Your task to perform on an android device: open sync settings in chrome Image 0: 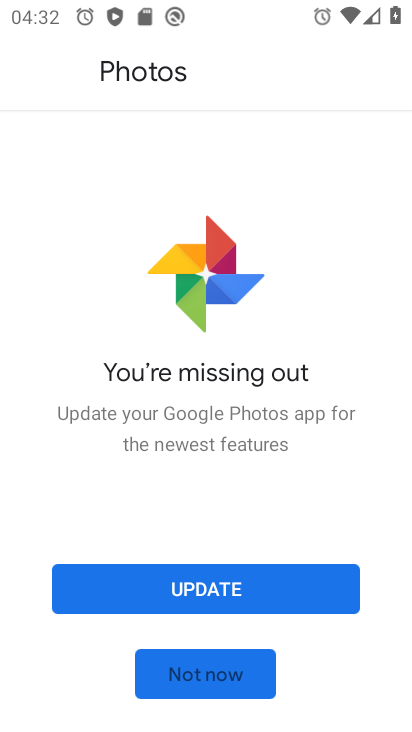
Step 0: press home button
Your task to perform on an android device: open sync settings in chrome Image 1: 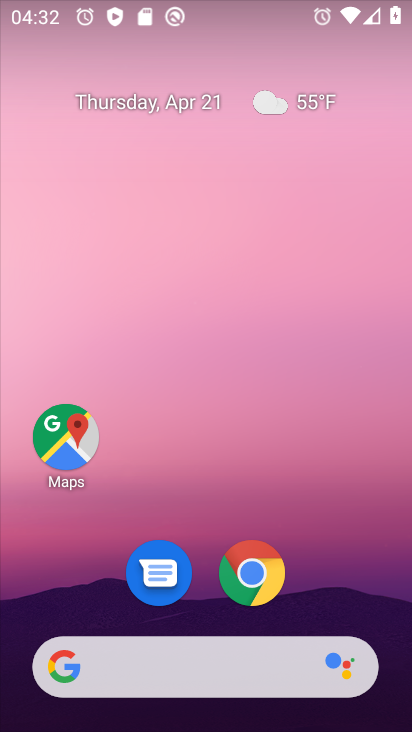
Step 1: click (248, 568)
Your task to perform on an android device: open sync settings in chrome Image 2: 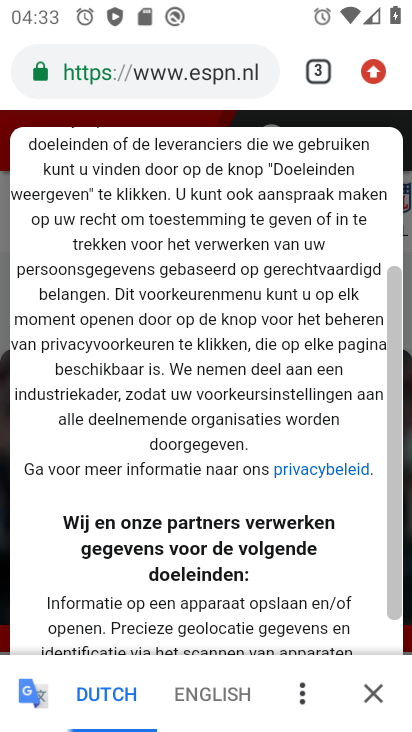
Step 2: click (368, 75)
Your task to perform on an android device: open sync settings in chrome Image 3: 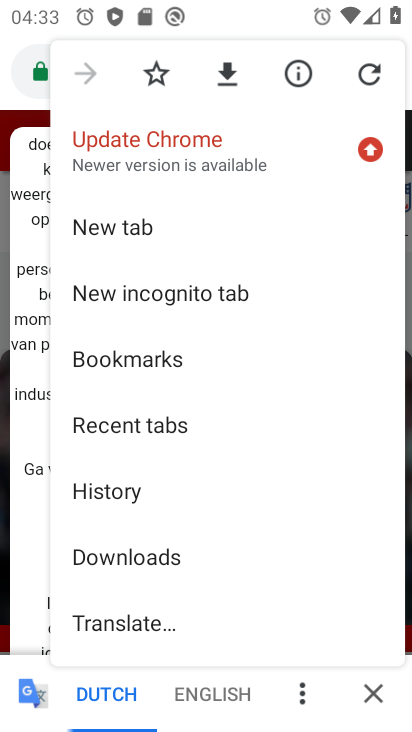
Step 3: drag from (246, 552) to (275, 274)
Your task to perform on an android device: open sync settings in chrome Image 4: 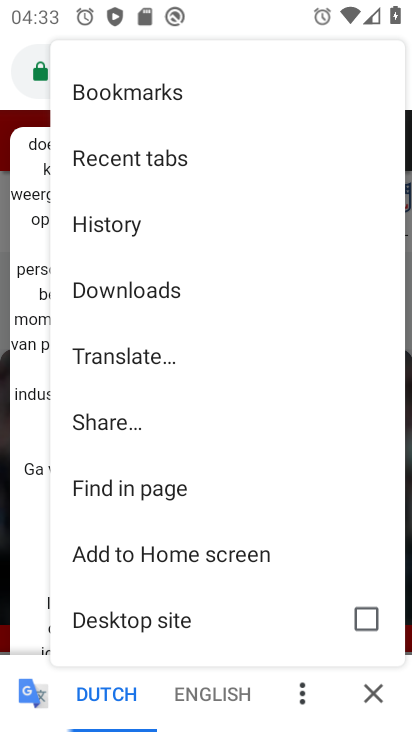
Step 4: drag from (282, 603) to (296, 316)
Your task to perform on an android device: open sync settings in chrome Image 5: 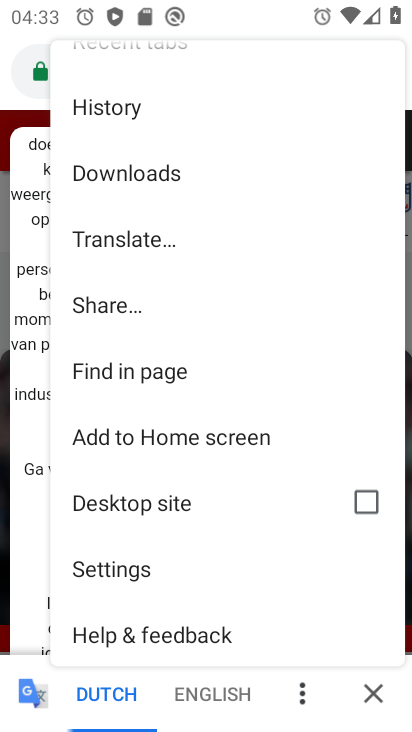
Step 5: click (110, 577)
Your task to perform on an android device: open sync settings in chrome Image 6: 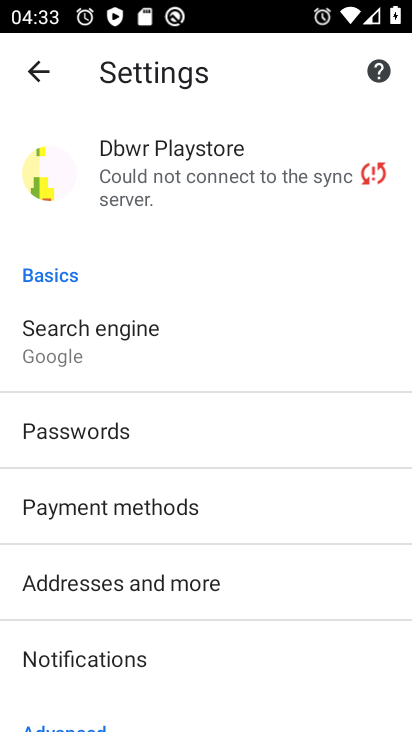
Step 6: click (141, 167)
Your task to perform on an android device: open sync settings in chrome Image 7: 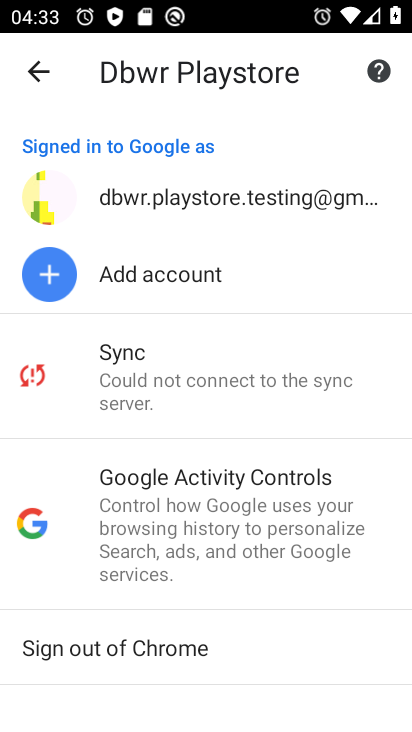
Step 7: drag from (288, 479) to (292, 438)
Your task to perform on an android device: open sync settings in chrome Image 8: 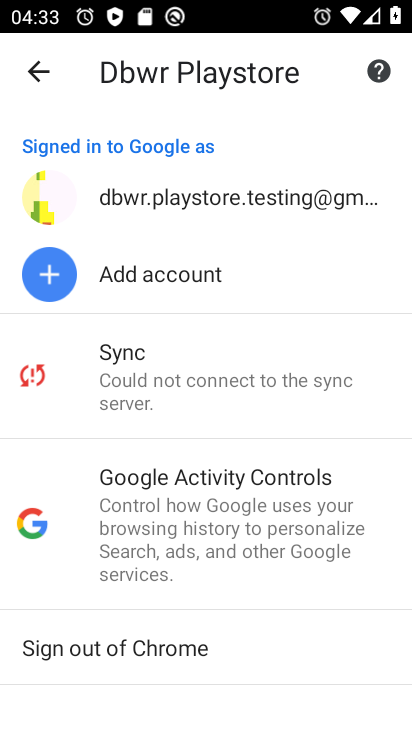
Step 8: click (135, 367)
Your task to perform on an android device: open sync settings in chrome Image 9: 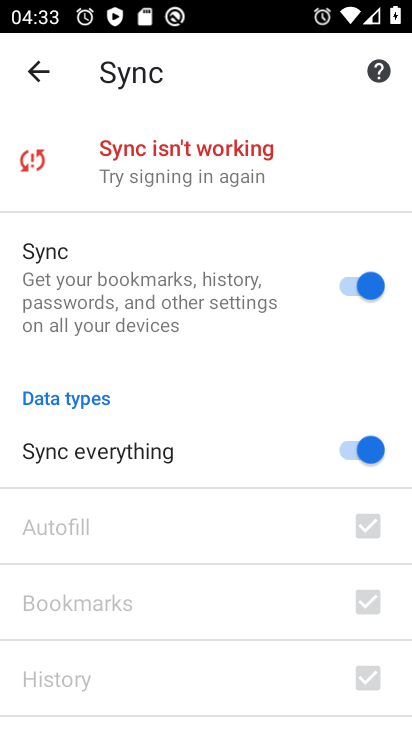
Step 9: task complete